Your task to perform on an android device: See recent photos Image 0: 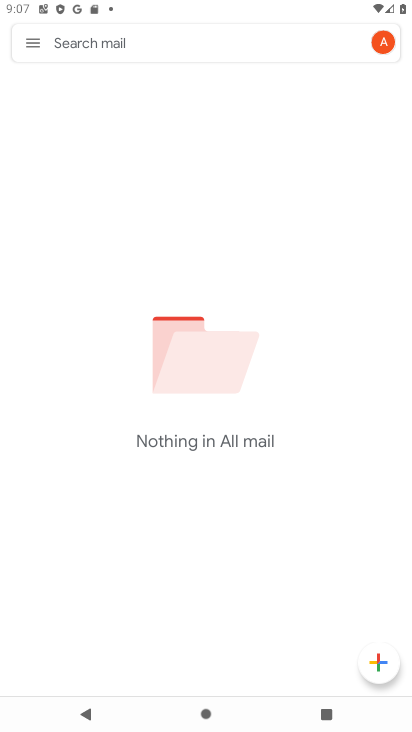
Step 0: press home button
Your task to perform on an android device: See recent photos Image 1: 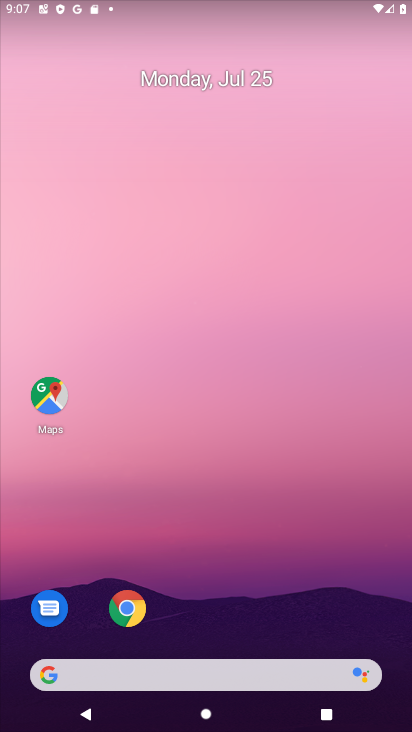
Step 1: drag from (259, 604) to (258, 188)
Your task to perform on an android device: See recent photos Image 2: 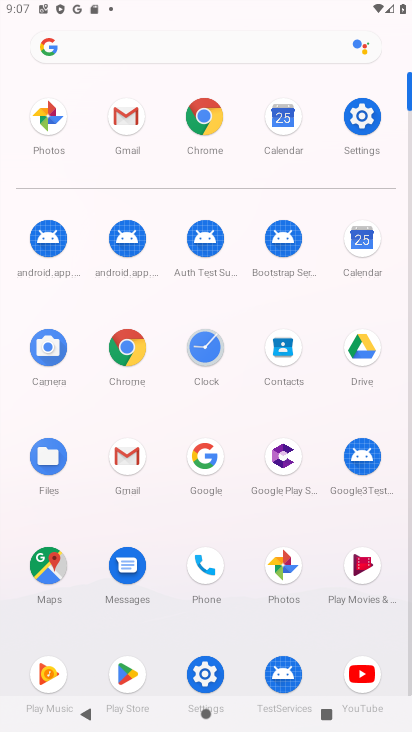
Step 2: click (287, 562)
Your task to perform on an android device: See recent photos Image 3: 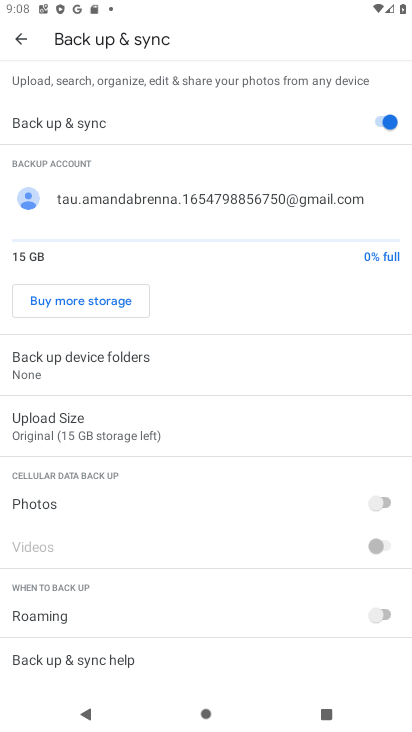
Step 3: click (12, 24)
Your task to perform on an android device: See recent photos Image 4: 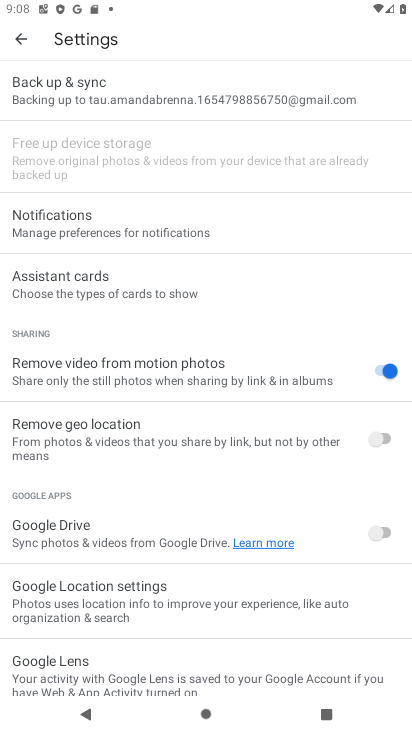
Step 4: click (21, 28)
Your task to perform on an android device: See recent photos Image 5: 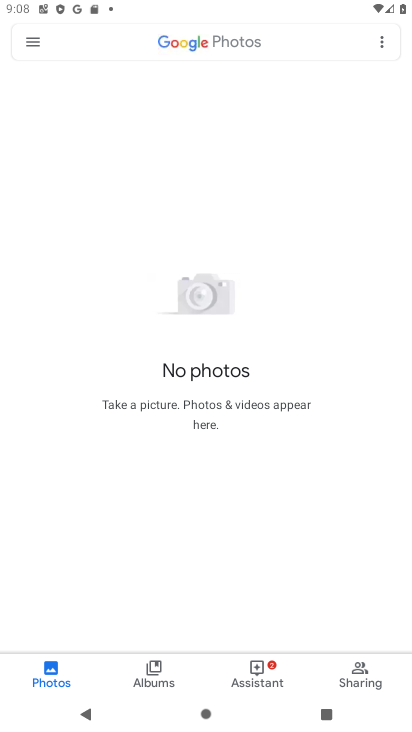
Step 5: click (151, 663)
Your task to perform on an android device: See recent photos Image 6: 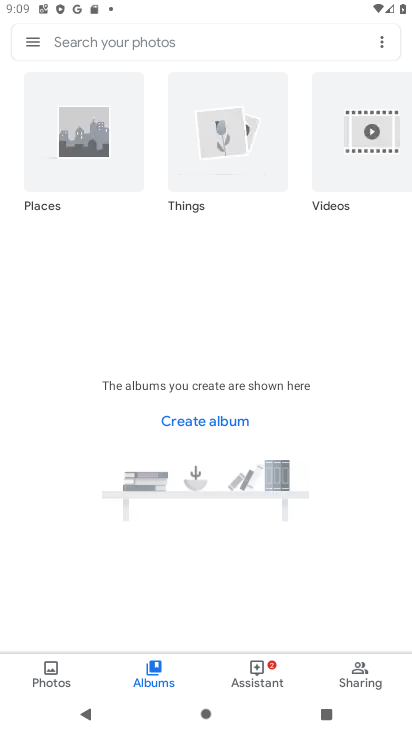
Step 6: task complete